Your task to perform on an android device: Go to Google Image 0: 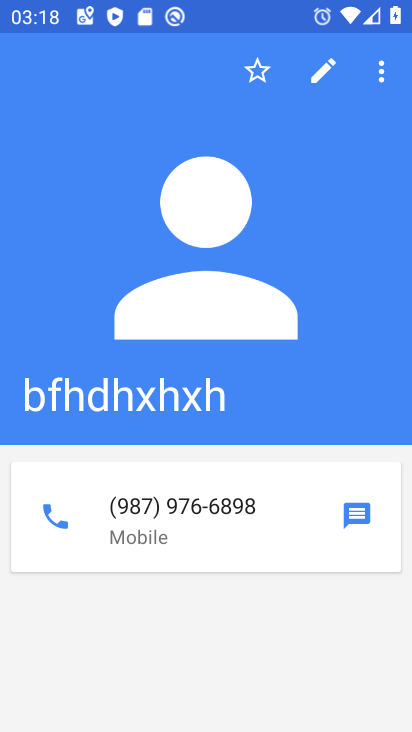
Step 0: press home button
Your task to perform on an android device: Go to Google Image 1: 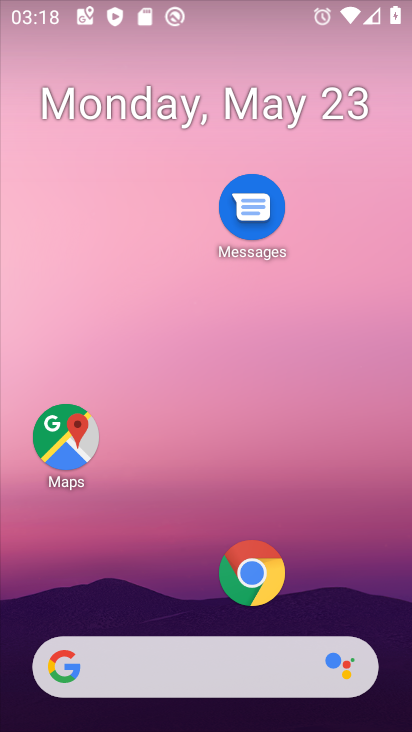
Step 1: drag from (257, 588) to (280, 135)
Your task to perform on an android device: Go to Google Image 2: 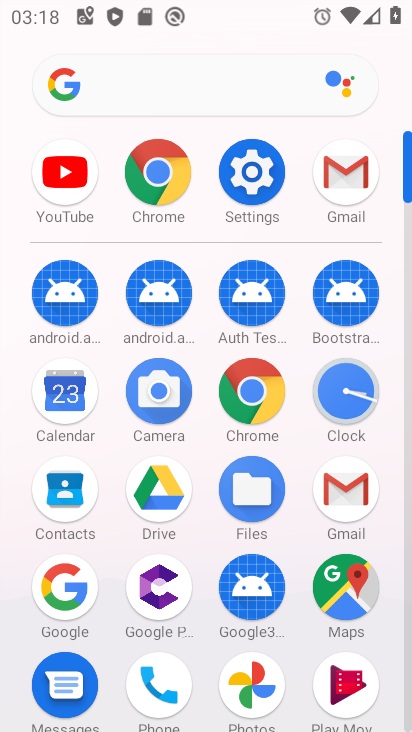
Step 2: click (252, 394)
Your task to perform on an android device: Go to Google Image 3: 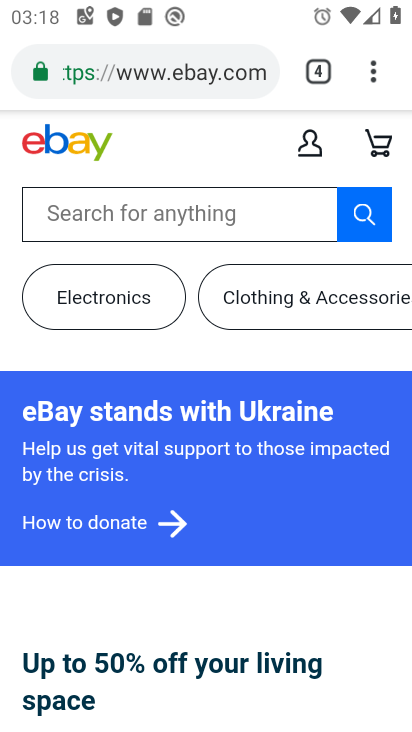
Step 3: task complete